Your task to perform on an android device: turn off improve location accuracy Image 0: 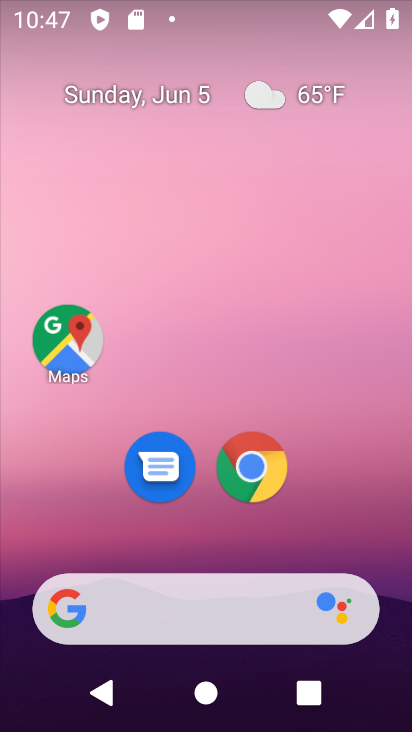
Step 0: drag from (375, 537) to (314, 0)
Your task to perform on an android device: turn off improve location accuracy Image 1: 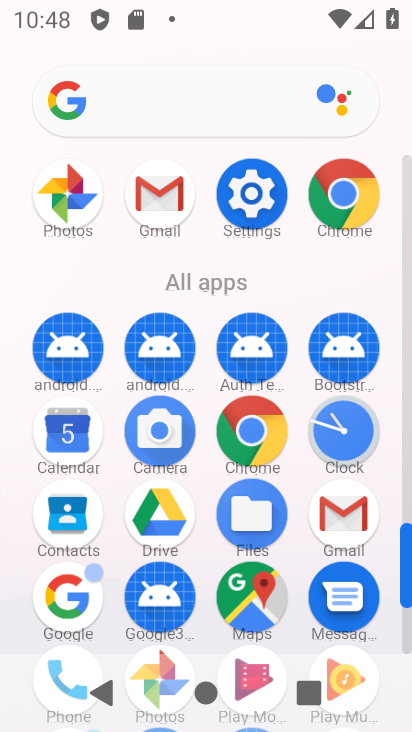
Step 1: click (247, 189)
Your task to perform on an android device: turn off improve location accuracy Image 2: 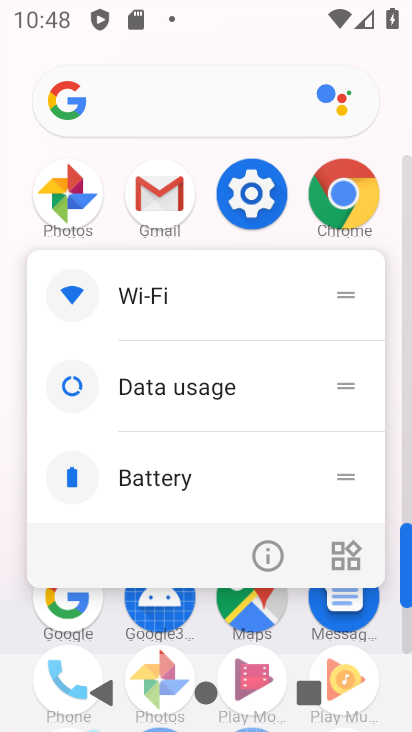
Step 2: click (249, 191)
Your task to perform on an android device: turn off improve location accuracy Image 3: 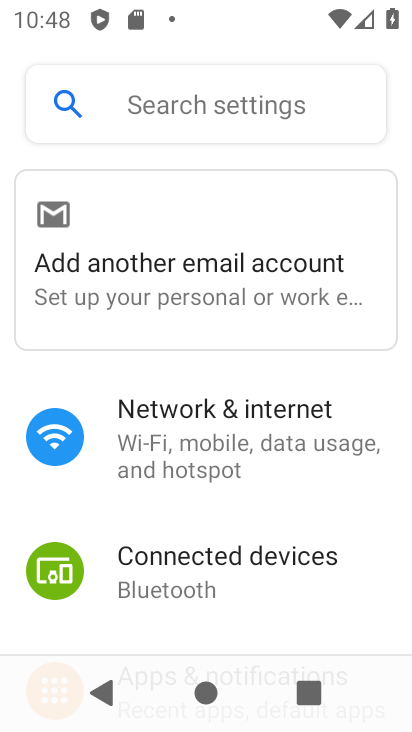
Step 3: drag from (330, 613) to (305, 251)
Your task to perform on an android device: turn off improve location accuracy Image 4: 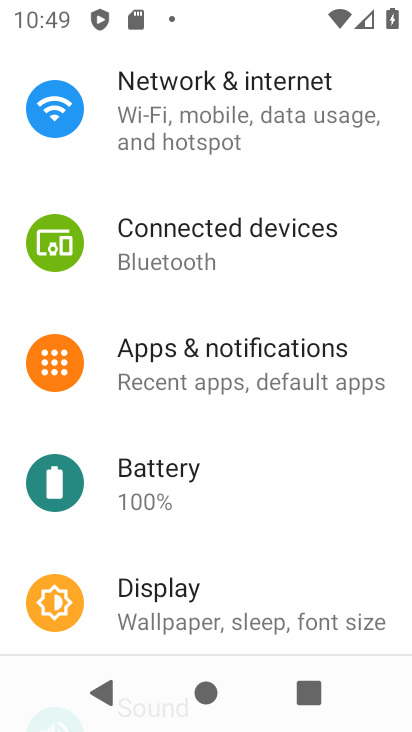
Step 4: drag from (231, 492) to (233, 37)
Your task to perform on an android device: turn off improve location accuracy Image 5: 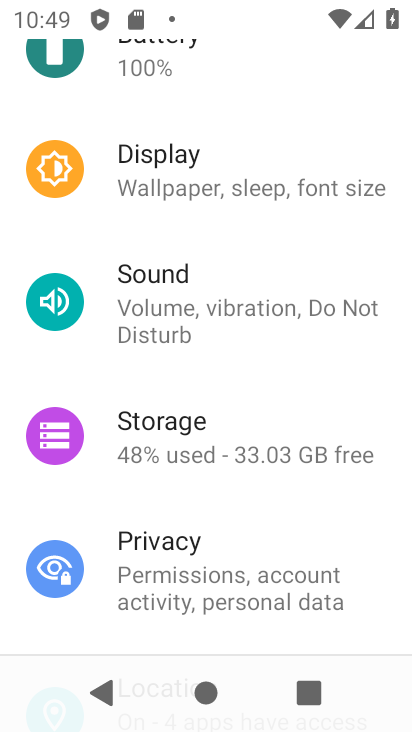
Step 5: drag from (193, 440) to (243, 15)
Your task to perform on an android device: turn off improve location accuracy Image 6: 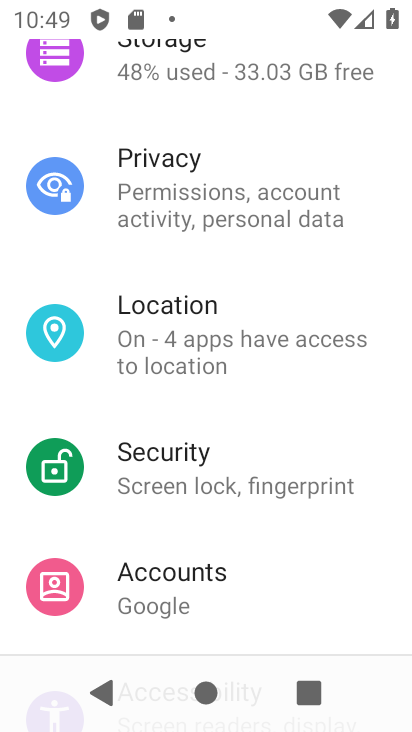
Step 6: drag from (374, 521) to (346, 418)
Your task to perform on an android device: turn off improve location accuracy Image 7: 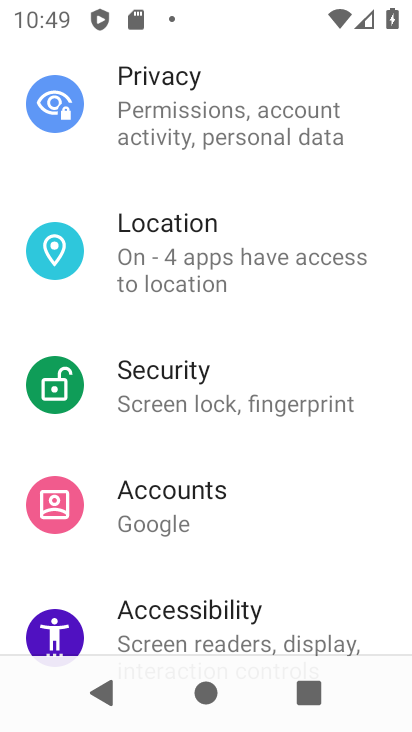
Step 7: click (262, 280)
Your task to perform on an android device: turn off improve location accuracy Image 8: 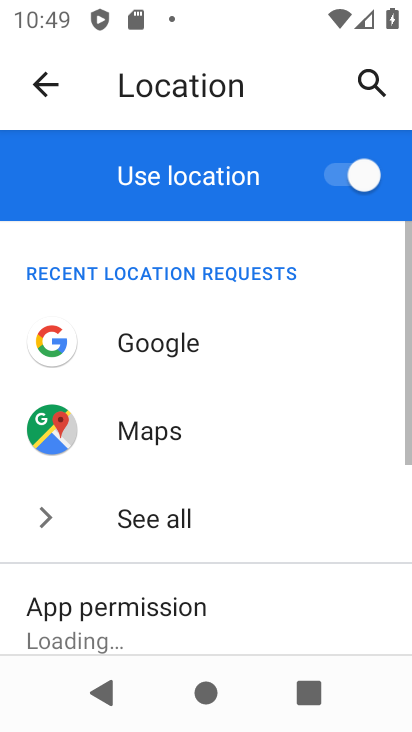
Step 8: drag from (130, 598) to (138, 201)
Your task to perform on an android device: turn off improve location accuracy Image 9: 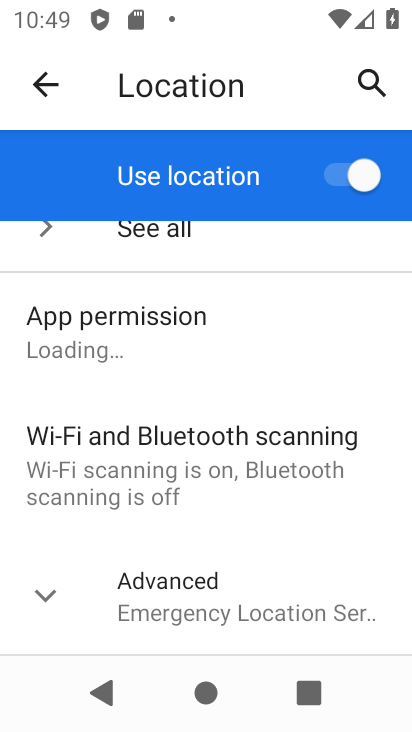
Step 9: click (112, 619)
Your task to perform on an android device: turn off improve location accuracy Image 10: 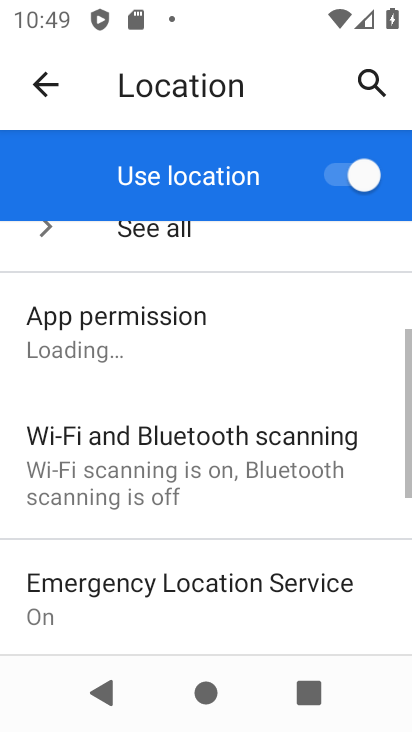
Step 10: drag from (205, 587) to (345, 388)
Your task to perform on an android device: turn off improve location accuracy Image 11: 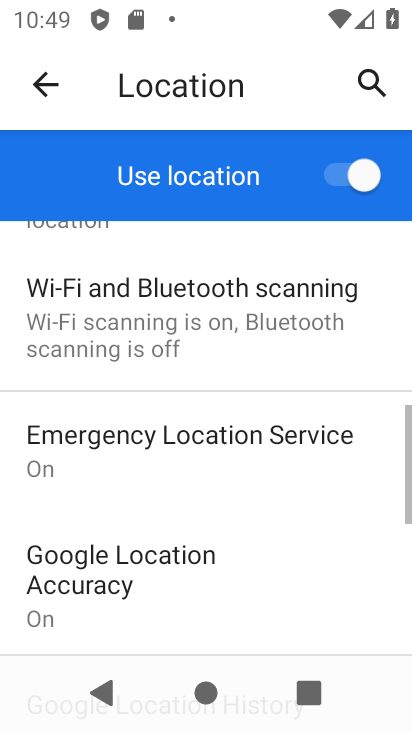
Step 11: click (202, 547)
Your task to perform on an android device: turn off improve location accuracy Image 12: 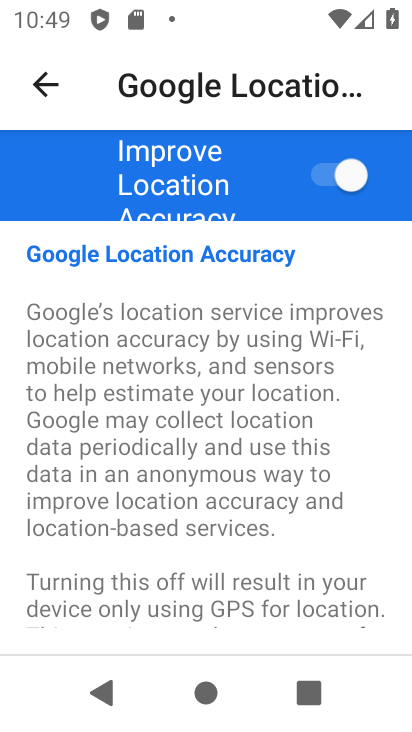
Step 12: click (223, 196)
Your task to perform on an android device: turn off improve location accuracy Image 13: 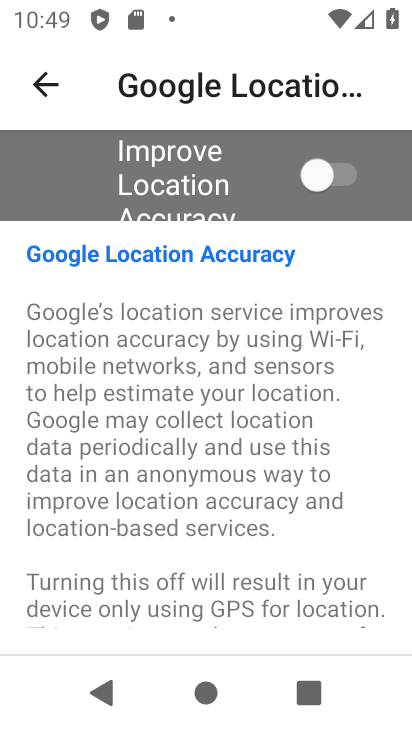
Step 13: task complete